Your task to perform on an android device: turn off data saver in the chrome app Image 0: 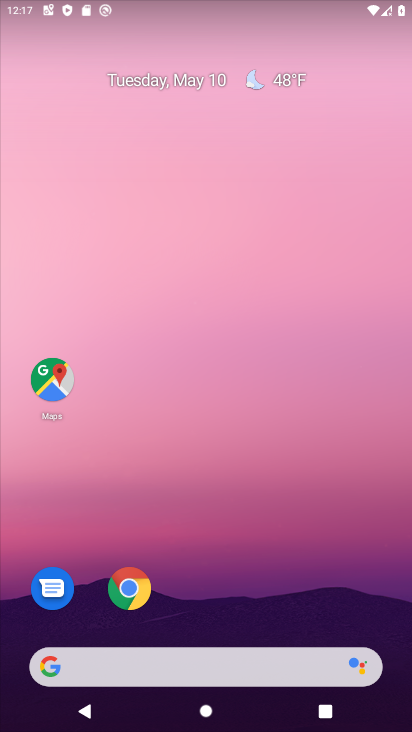
Step 0: drag from (216, 636) to (122, 6)
Your task to perform on an android device: turn off data saver in the chrome app Image 1: 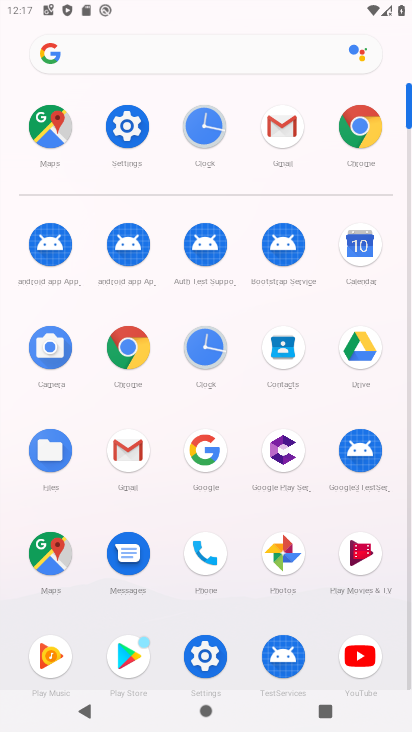
Step 1: click (113, 327)
Your task to perform on an android device: turn off data saver in the chrome app Image 2: 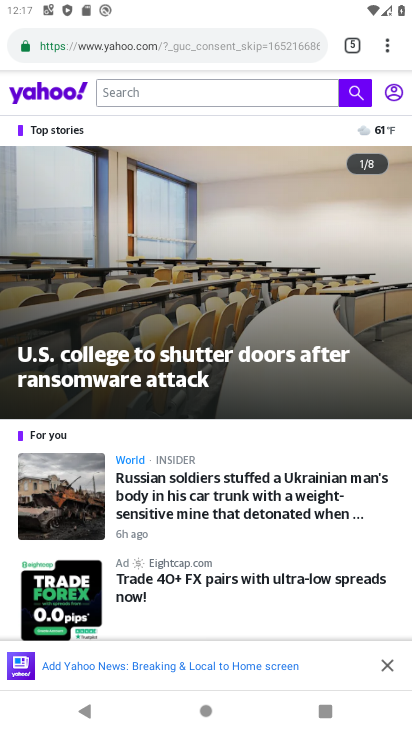
Step 2: click (369, 68)
Your task to perform on an android device: turn off data saver in the chrome app Image 3: 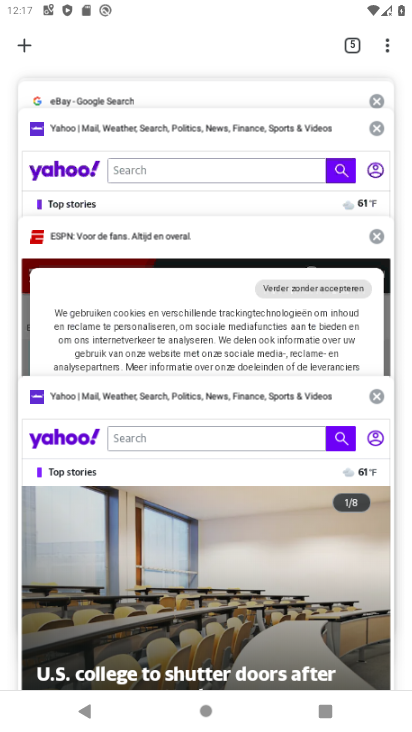
Step 3: click (382, 51)
Your task to perform on an android device: turn off data saver in the chrome app Image 4: 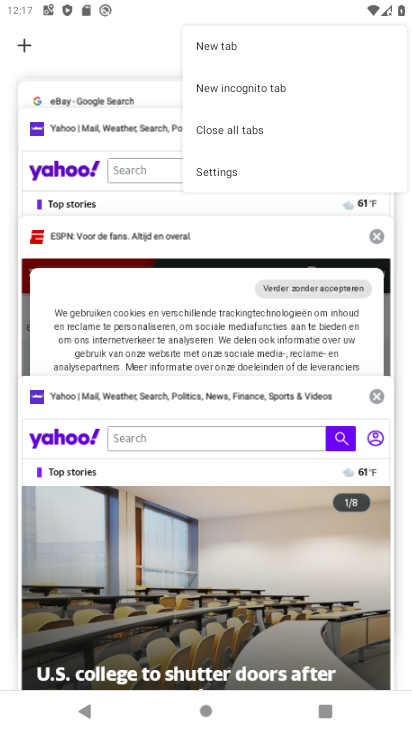
Step 4: click (303, 173)
Your task to perform on an android device: turn off data saver in the chrome app Image 5: 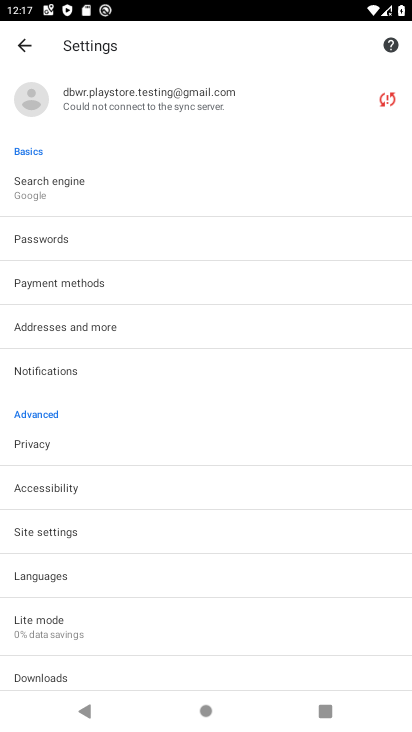
Step 5: click (160, 608)
Your task to perform on an android device: turn off data saver in the chrome app Image 6: 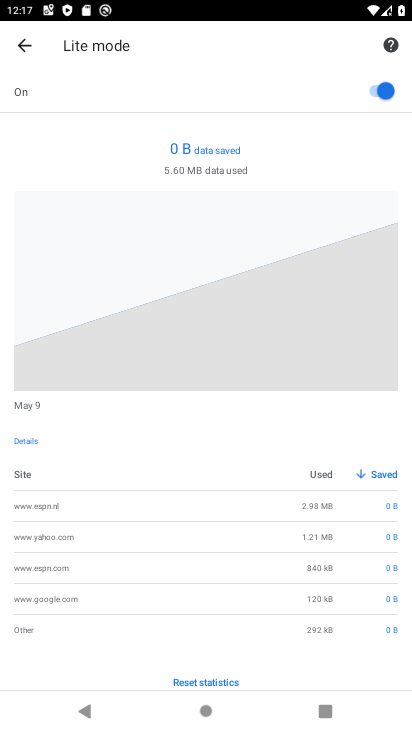
Step 6: click (369, 86)
Your task to perform on an android device: turn off data saver in the chrome app Image 7: 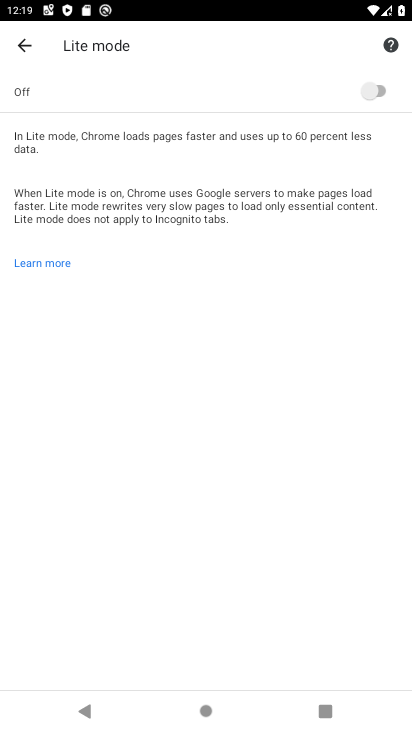
Step 7: task complete